Your task to perform on an android device: change the clock display to analog Image 0: 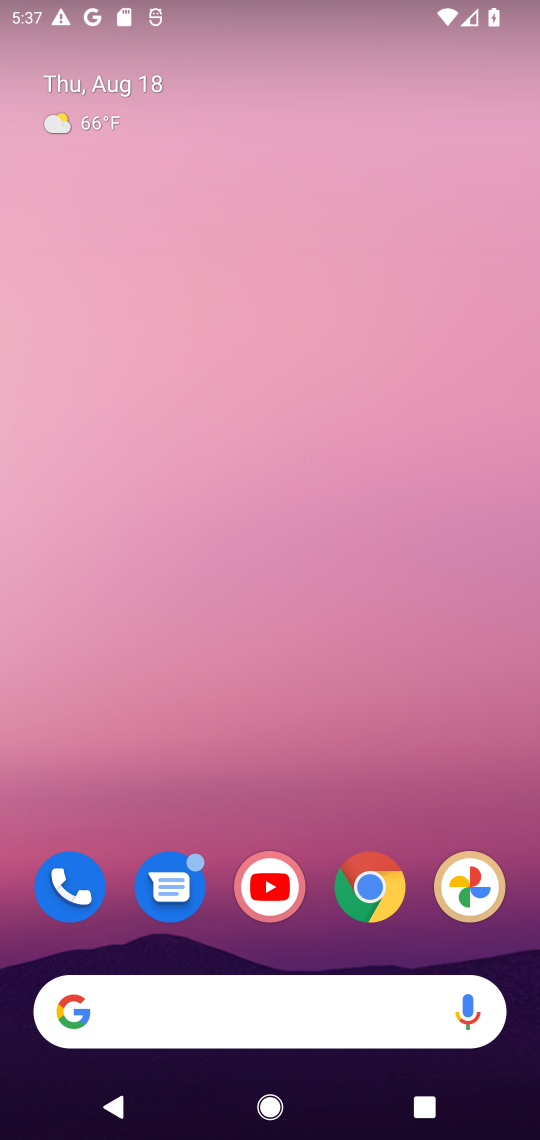
Step 0: drag from (316, 673) to (355, 170)
Your task to perform on an android device: change the clock display to analog Image 1: 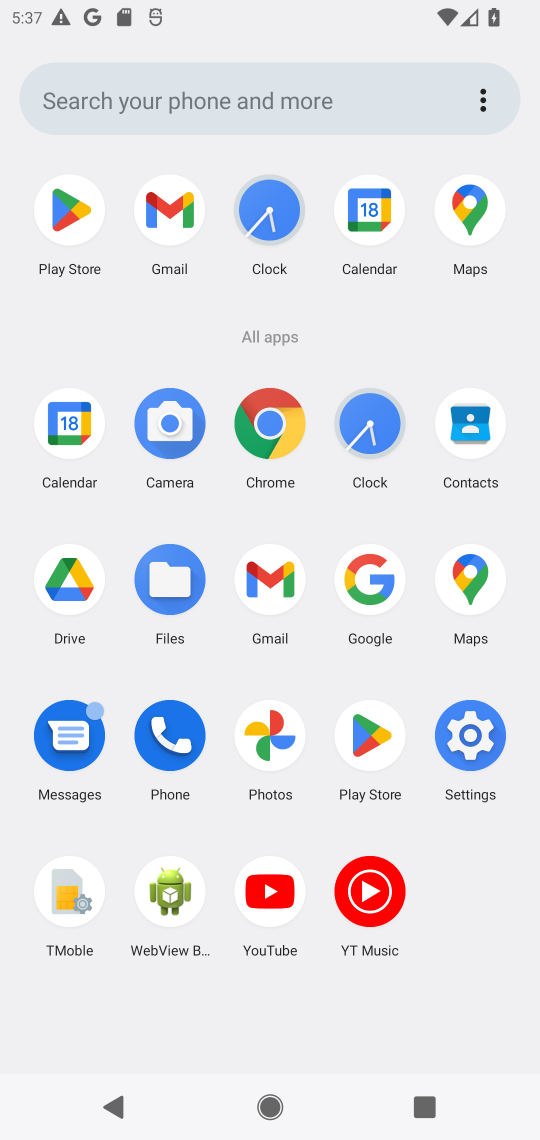
Step 1: task complete